Your task to perform on an android device: search for 2021 honda civic Image 0: 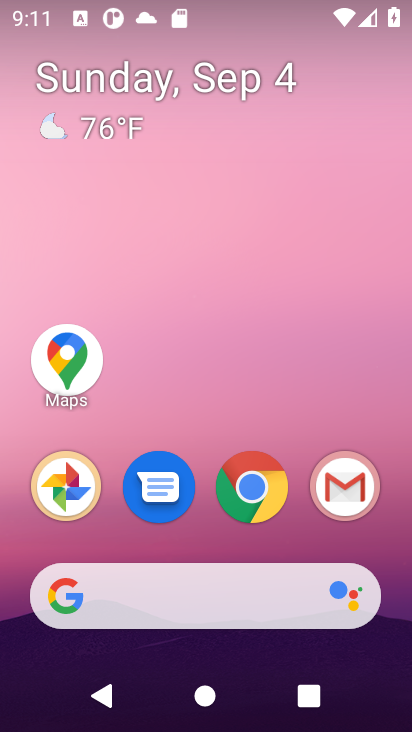
Step 0: click (151, 588)
Your task to perform on an android device: search for 2021 honda civic Image 1: 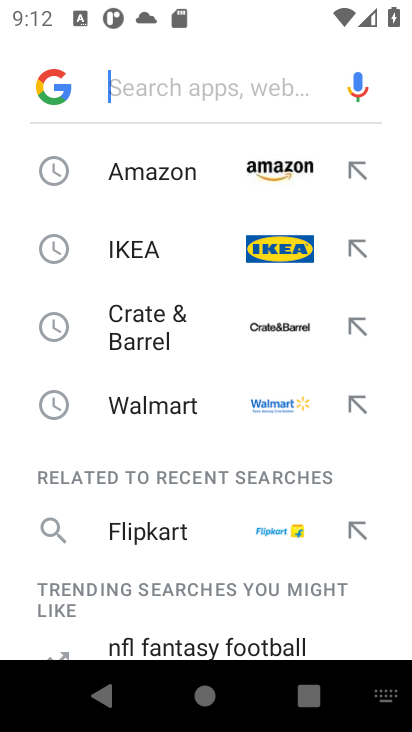
Step 1: type "2021 honda civic"
Your task to perform on an android device: search for 2021 honda civic Image 2: 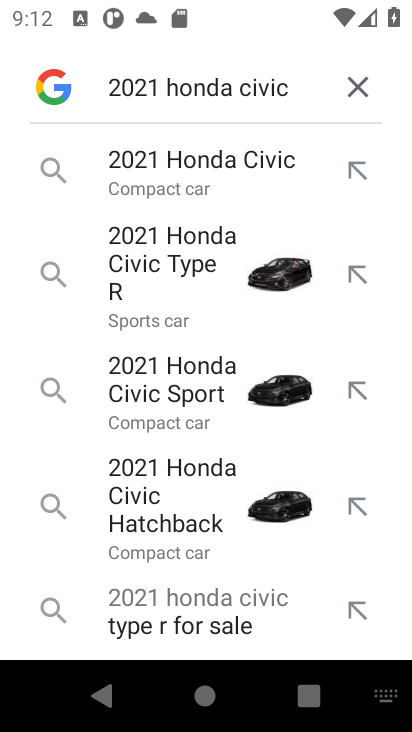
Step 2: click (195, 165)
Your task to perform on an android device: search for 2021 honda civic Image 3: 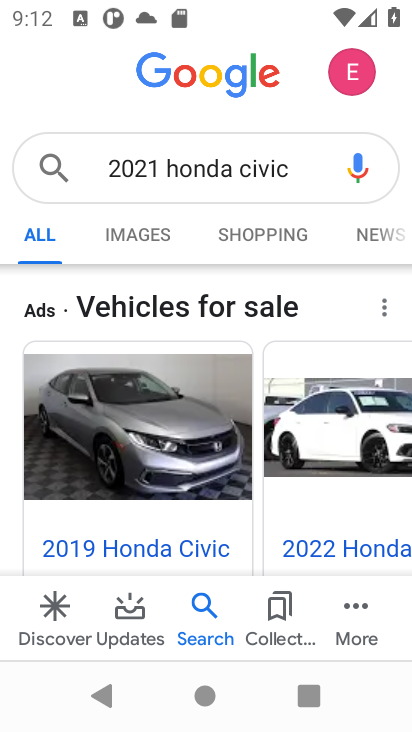
Step 3: task complete